Your task to perform on an android device: check android version Image 0: 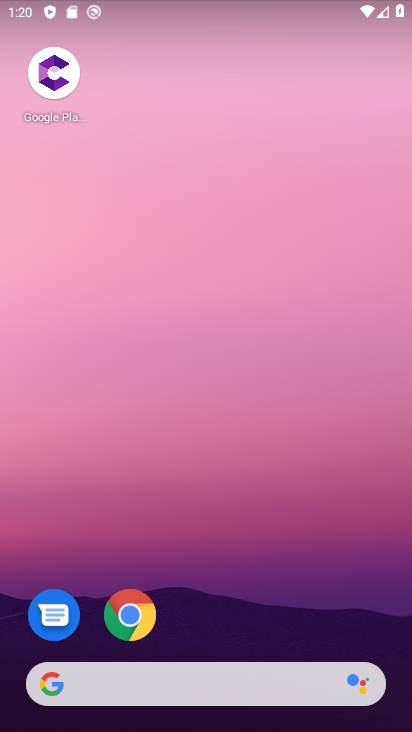
Step 0: drag from (218, 640) to (237, 93)
Your task to perform on an android device: check android version Image 1: 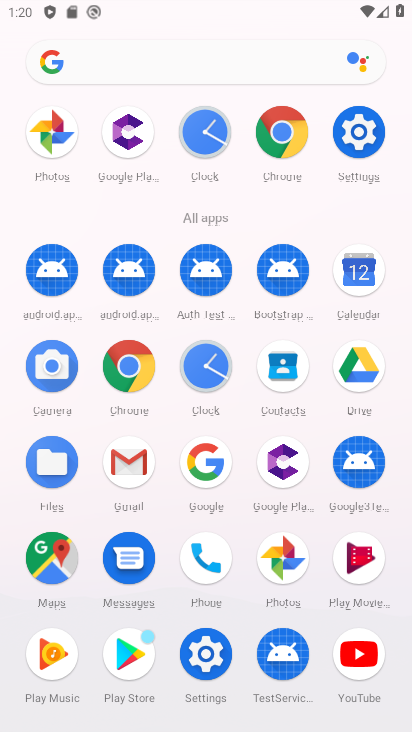
Step 1: drag from (369, 38) to (409, 81)
Your task to perform on an android device: check android version Image 2: 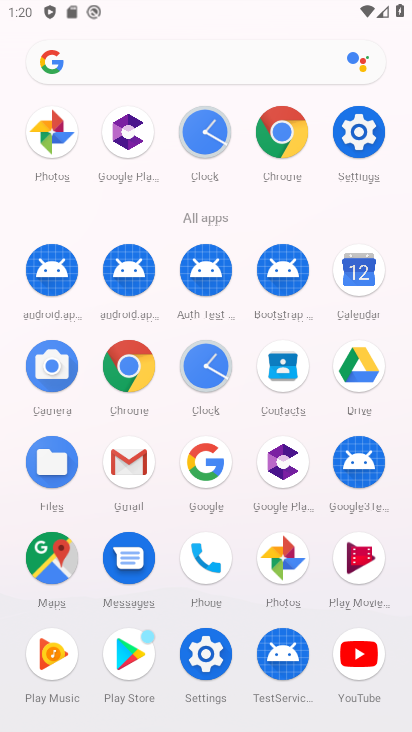
Step 2: click (341, 135)
Your task to perform on an android device: check android version Image 3: 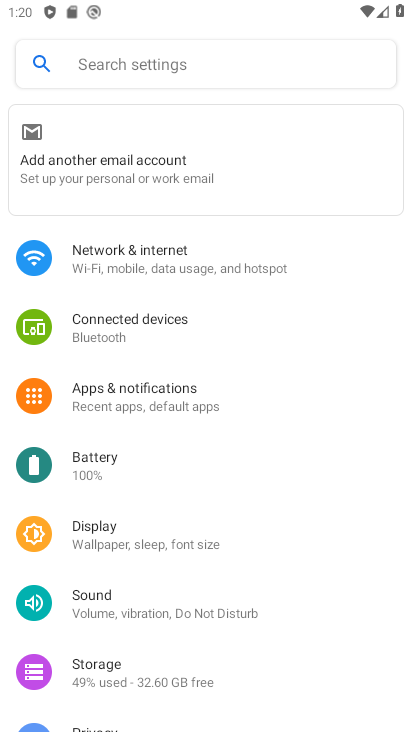
Step 3: drag from (182, 501) to (221, 89)
Your task to perform on an android device: check android version Image 4: 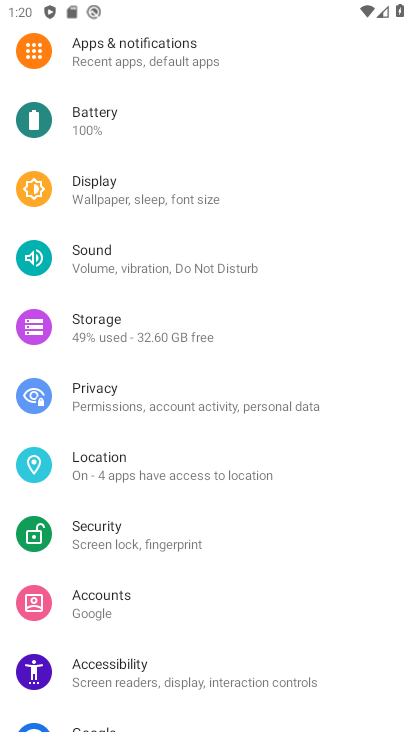
Step 4: drag from (203, 509) to (218, 87)
Your task to perform on an android device: check android version Image 5: 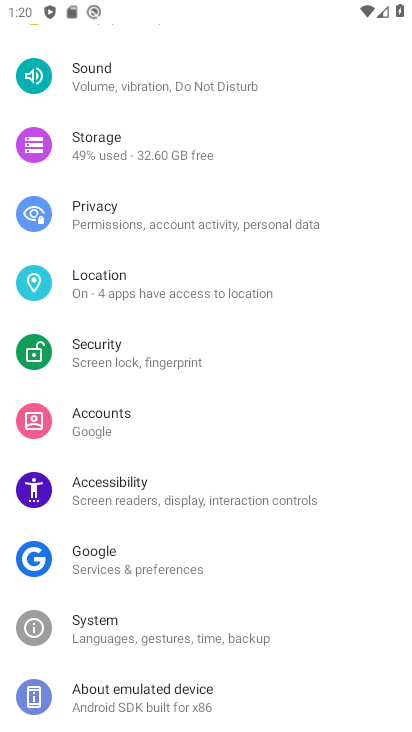
Step 5: click (140, 697)
Your task to perform on an android device: check android version Image 6: 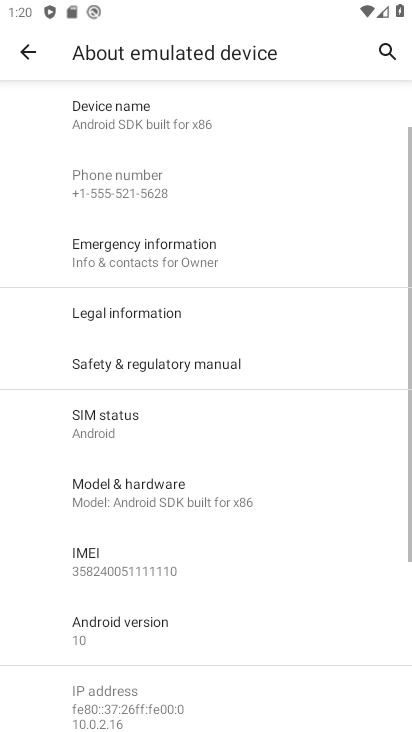
Step 6: click (99, 613)
Your task to perform on an android device: check android version Image 7: 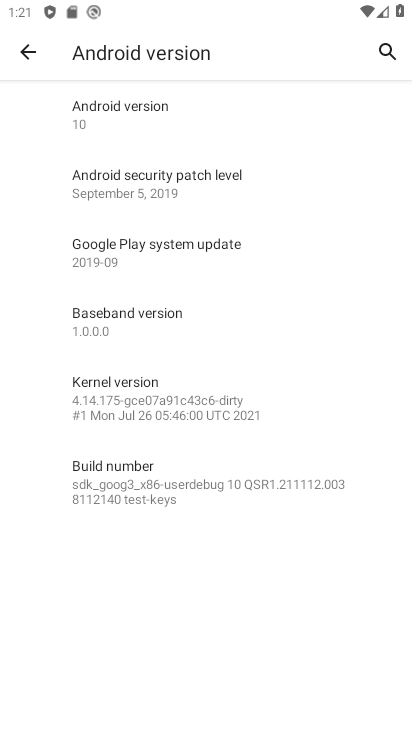
Step 7: task complete